Your task to perform on an android device: empty trash in the gmail app Image 0: 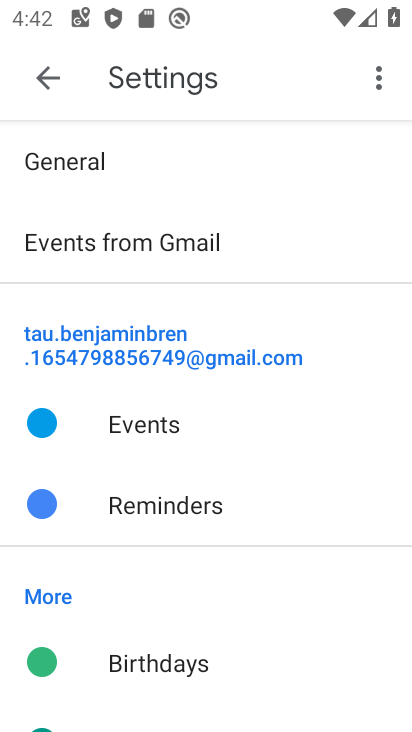
Step 0: press back button
Your task to perform on an android device: empty trash in the gmail app Image 1: 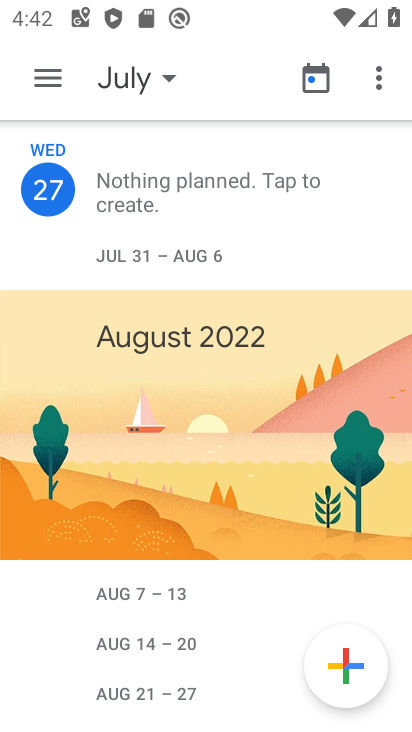
Step 1: press back button
Your task to perform on an android device: empty trash in the gmail app Image 2: 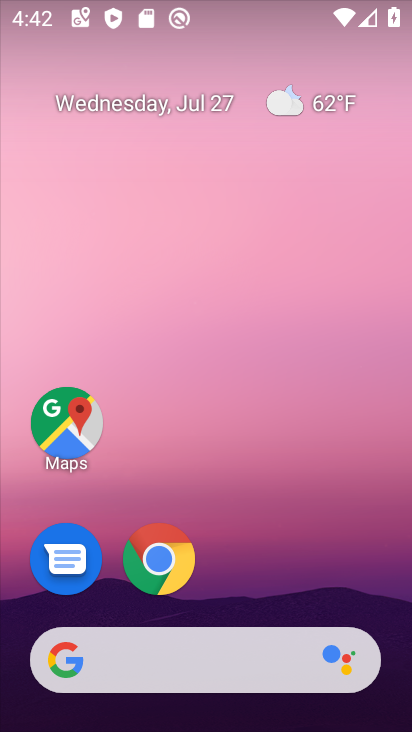
Step 2: drag from (259, 548) to (307, 45)
Your task to perform on an android device: empty trash in the gmail app Image 3: 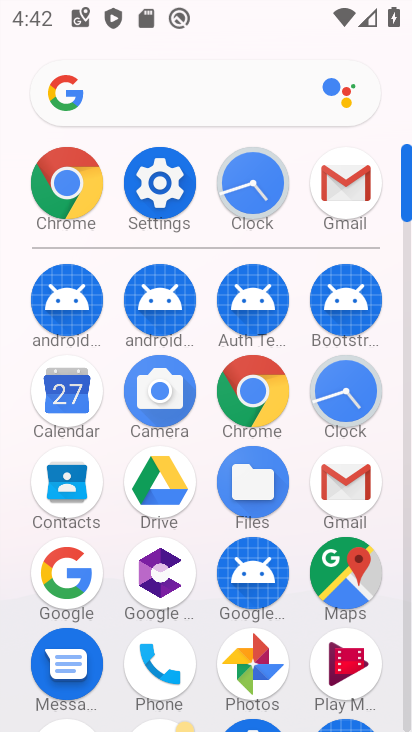
Step 3: click (357, 222)
Your task to perform on an android device: empty trash in the gmail app Image 4: 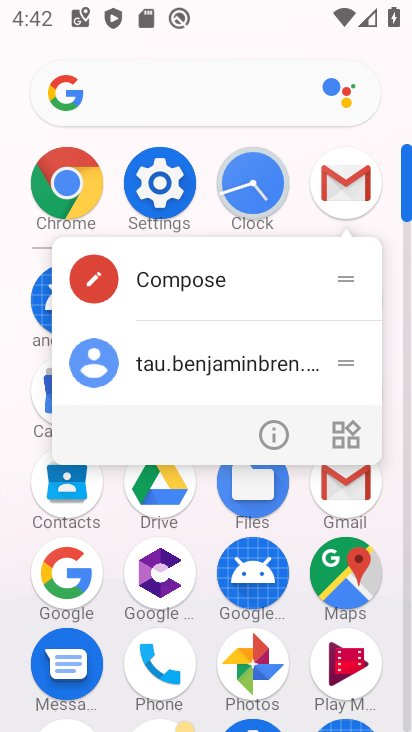
Step 4: click (347, 188)
Your task to perform on an android device: empty trash in the gmail app Image 5: 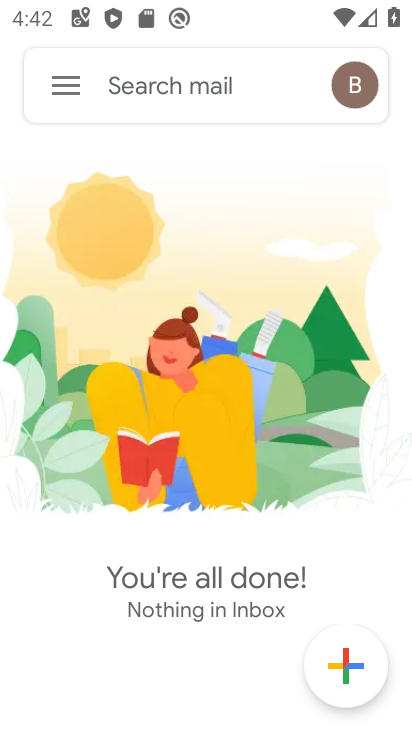
Step 5: click (52, 70)
Your task to perform on an android device: empty trash in the gmail app Image 6: 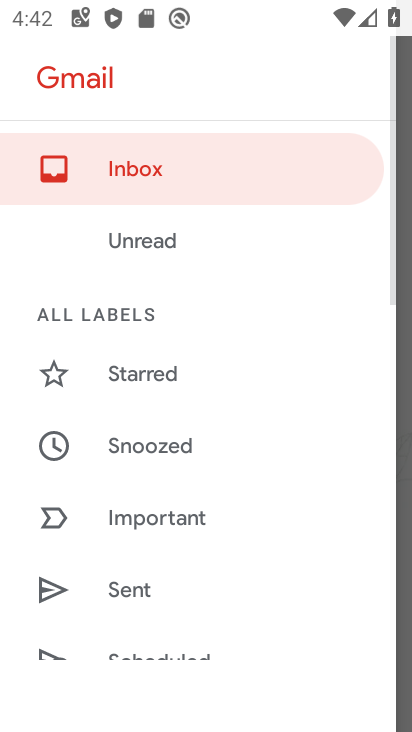
Step 6: drag from (165, 602) to (262, 66)
Your task to perform on an android device: empty trash in the gmail app Image 7: 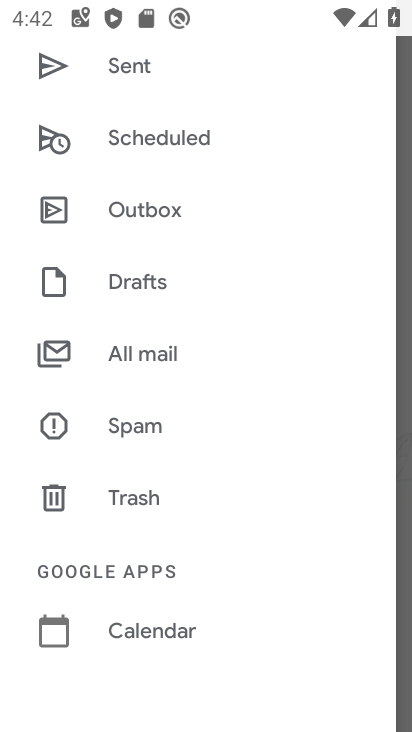
Step 7: click (149, 490)
Your task to perform on an android device: empty trash in the gmail app Image 8: 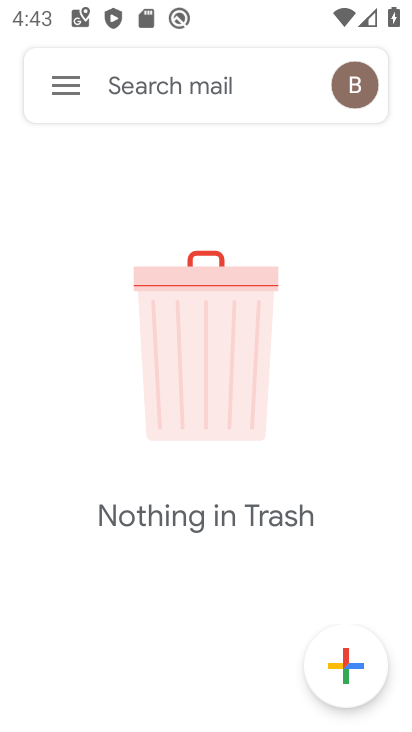
Step 8: click (57, 85)
Your task to perform on an android device: empty trash in the gmail app Image 9: 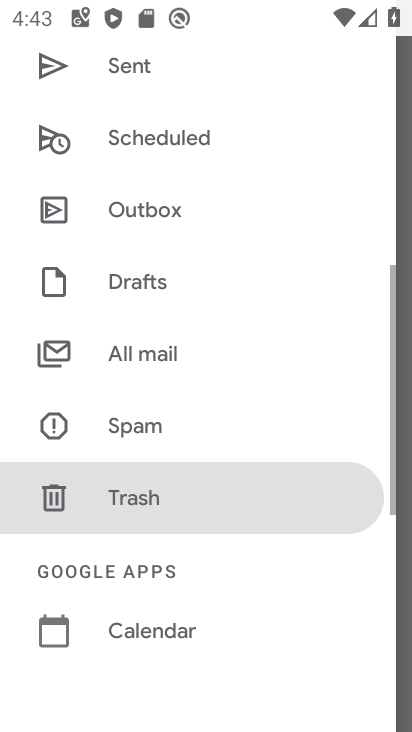
Step 9: click (182, 491)
Your task to perform on an android device: empty trash in the gmail app Image 10: 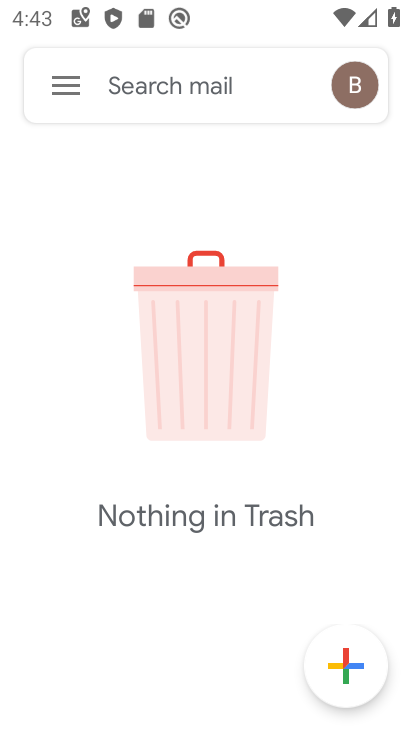
Step 10: task complete